Your task to perform on an android device: toggle priority inbox in the gmail app Image 0: 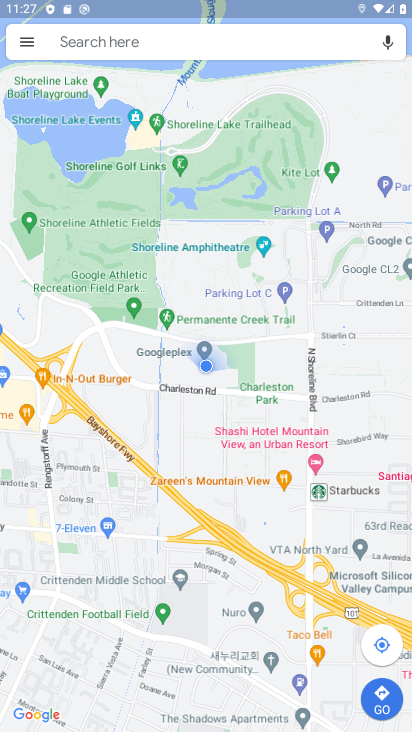
Step 0: press home button
Your task to perform on an android device: toggle priority inbox in the gmail app Image 1: 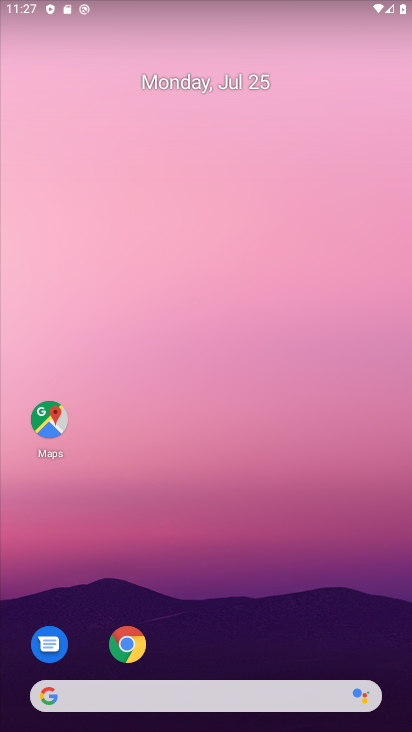
Step 1: drag from (128, 722) to (327, 63)
Your task to perform on an android device: toggle priority inbox in the gmail app Image 2: 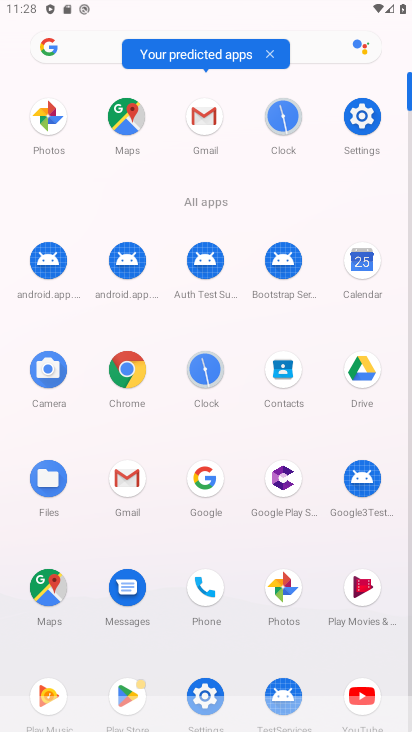
Step 2: click (377, 117)
Your task to perform on an android device: toggle priority inbox in the gmail app Image 3: 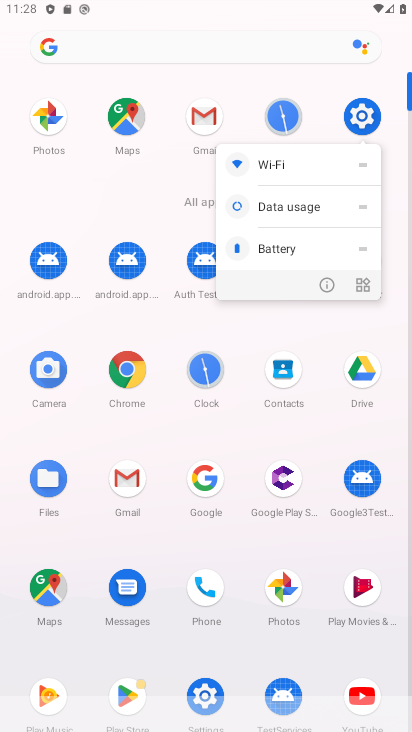
Step 3: click (205, 111)
Your task to perform on an android device: toggle priority inbox in the gmail app Image 4: 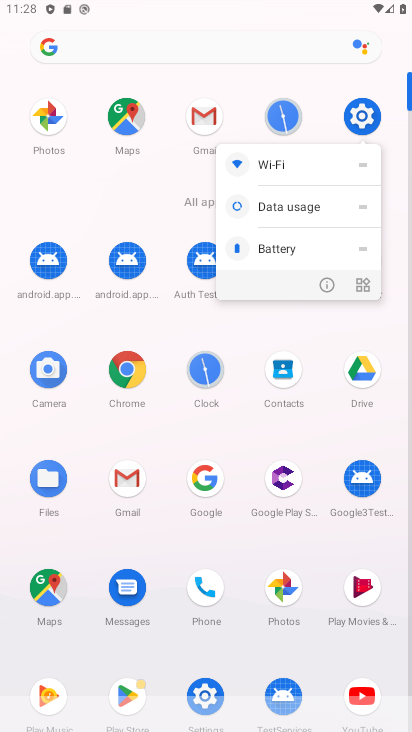
Step 4: click (205, 111)
Your task to perform on an android device: toggle priority inbox in the gmail app Image 5: 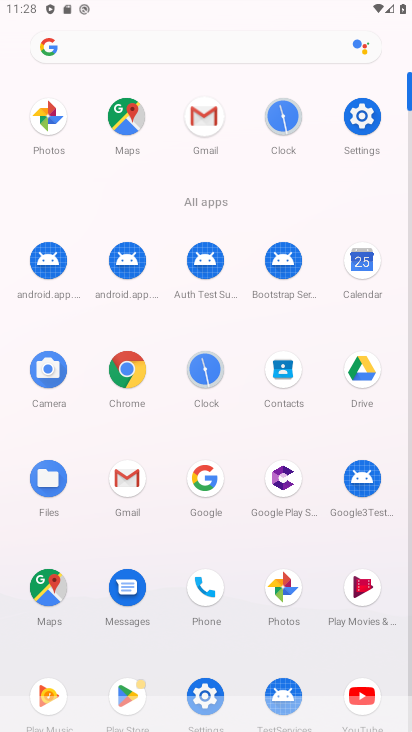
Step 5: click (205, 111)
Your task to perform on an android device: toggle priority inbox in the gmail app Image 6: 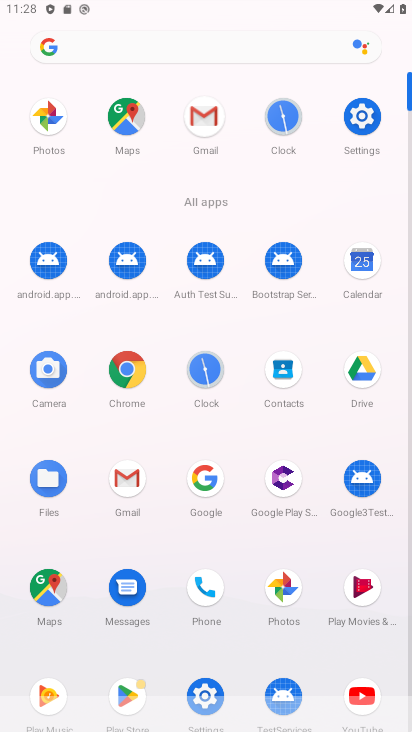
Step 6: click (205, 111)
Your task to perform on an android device: toggle priority inbox in the gmail app Image 7: 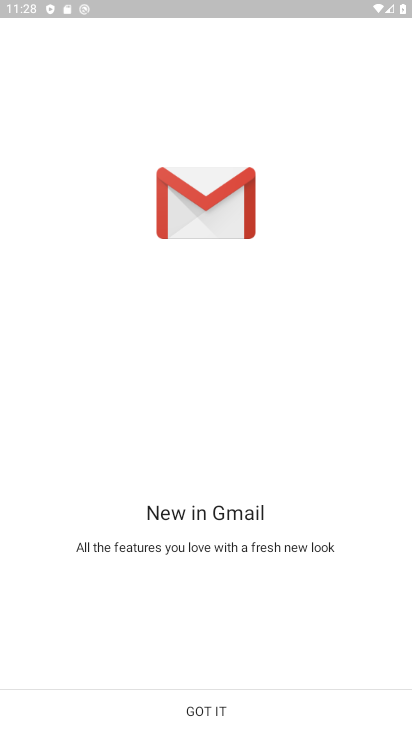
Step 7: click (170, 713)
Your task to perform on an android device: toggle priority inbox in the gmail app Image 8: 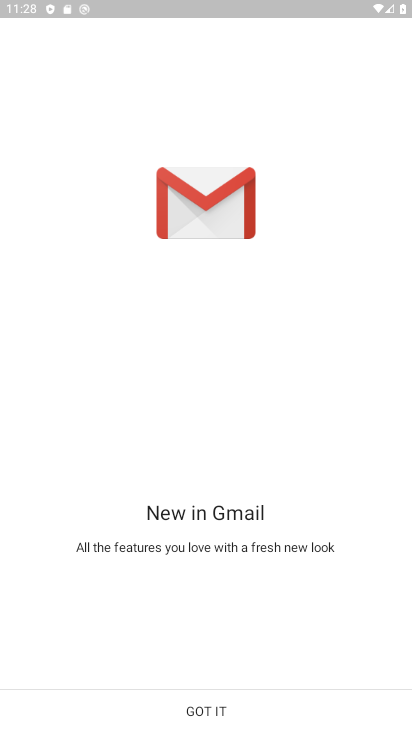
Step 8: click (170, 713)
Your task to perform on an android device: toggle priority inbox in the gmail app Image 9: 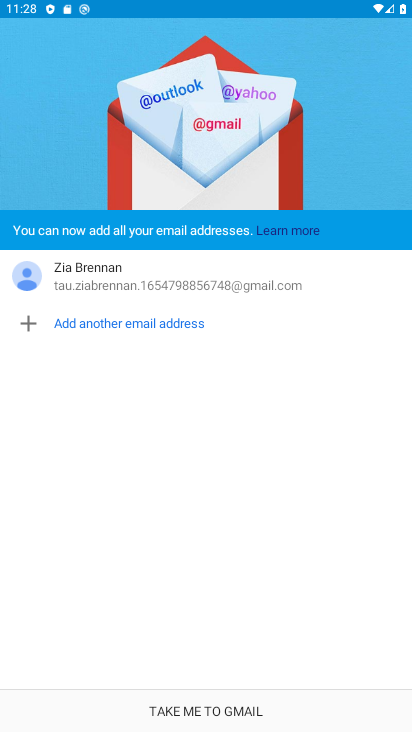
Step 9: click (170, 713)
Your task to perform on an android device: toggle priority inbox in the gmail app Image 10: 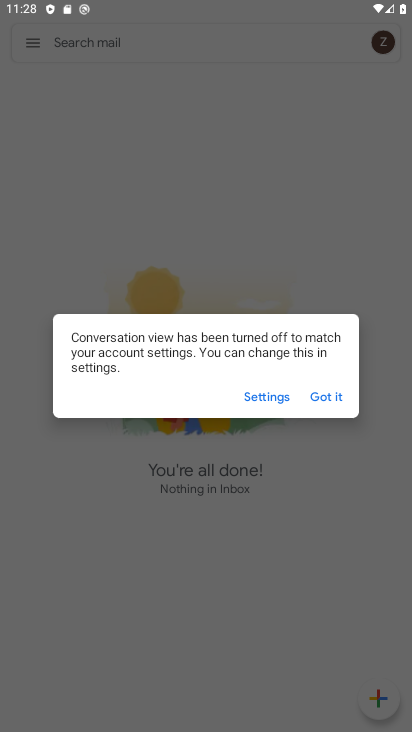
Step 10: click (327, 392)
Your task to perform on an android device: toggle priority inbox in the gmail app Image 11: 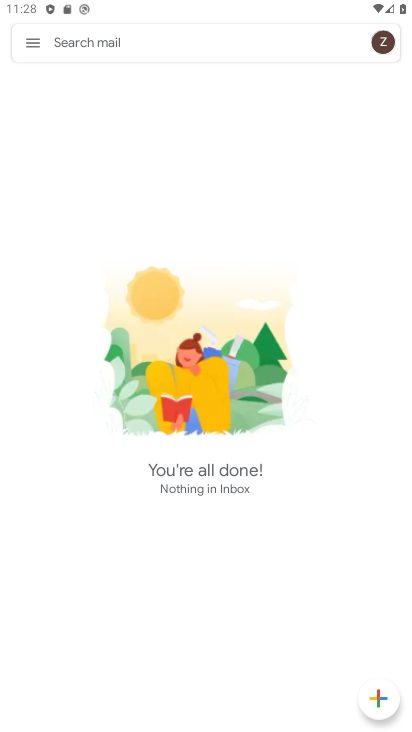
Step 11: click (39, 44)
Your task to perform on an android device: toggle priority inbox in the gmail app Image 12: 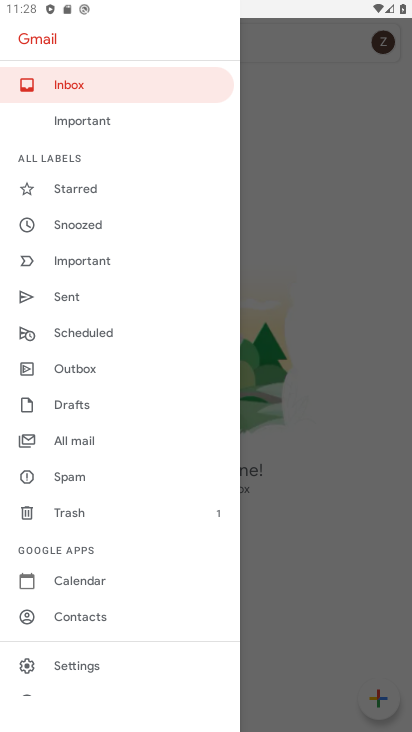
Step 12: click (89, 661)
Your task to perform on an android device: toggle priority inbox in the gmail app Image 13: 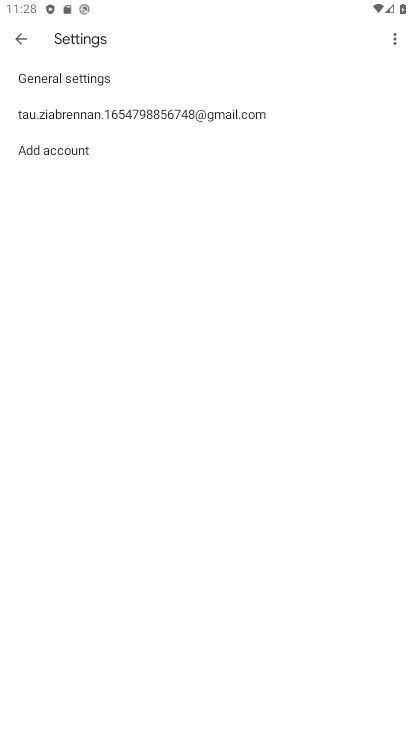
Step 13: click (107, 117)
Your task to perform on an android device: toggle priority inbox in the gmail app Image 14: 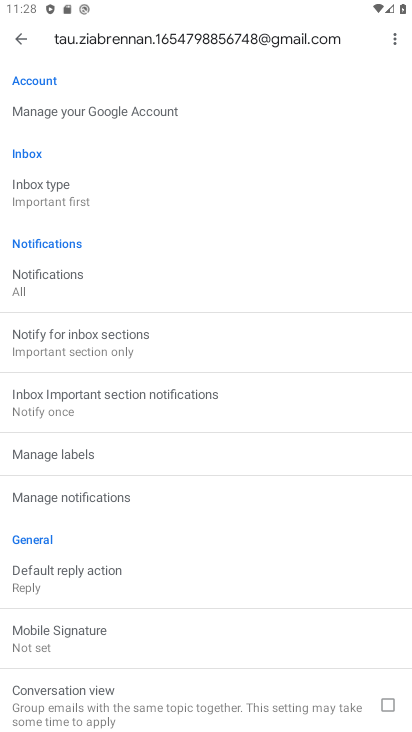
Step 14: click (73, 192)
Your task to perform on an android device: toggle priority inbox in the gmail app Image 15: 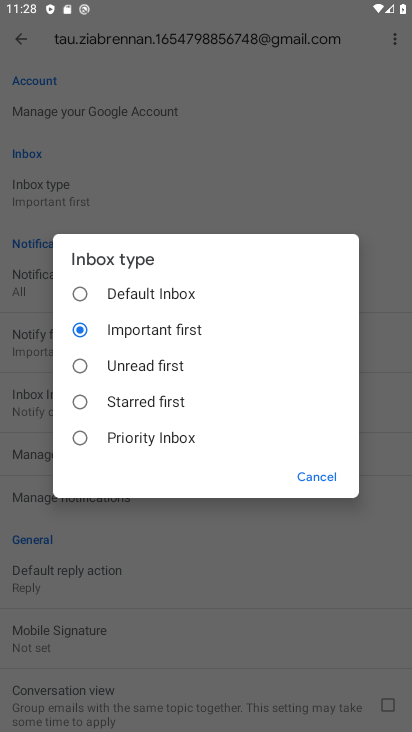
Step 15: click (145, 438)
Your task to perform on an android device: toggle priority inbox in the gmail app Image 16: 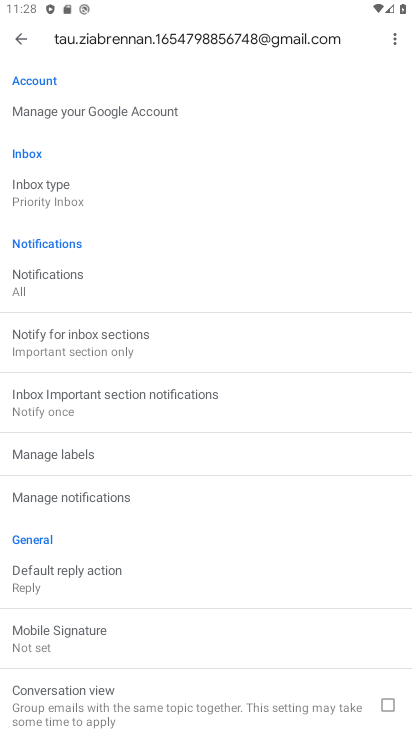
Step 16: task complete